Your task to perform on an android device: When is my next meeting? Image 0: 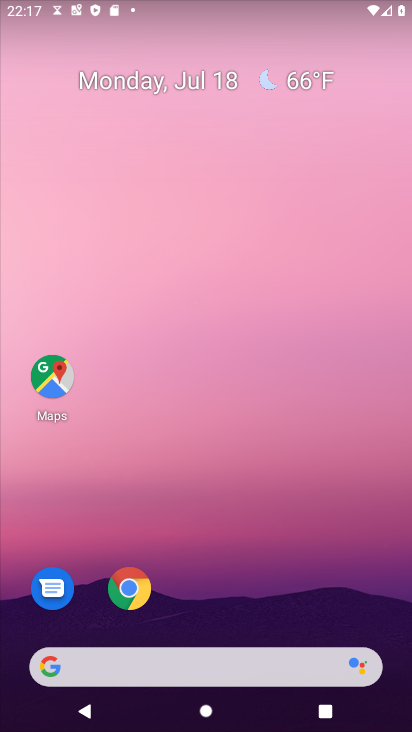
Step 0: press home button
Your task to perform on an android device: When is my next meeting? Image 1: 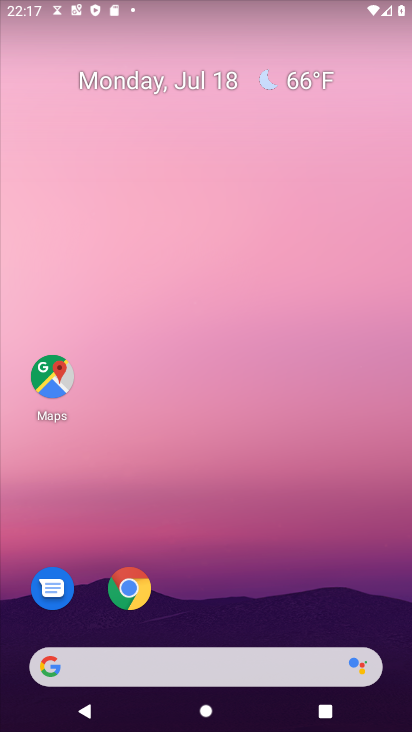
Step 1: drag from (187, 595) to (322, 145)
Your task to perform on an android device: When is my next meeting? Image 2: 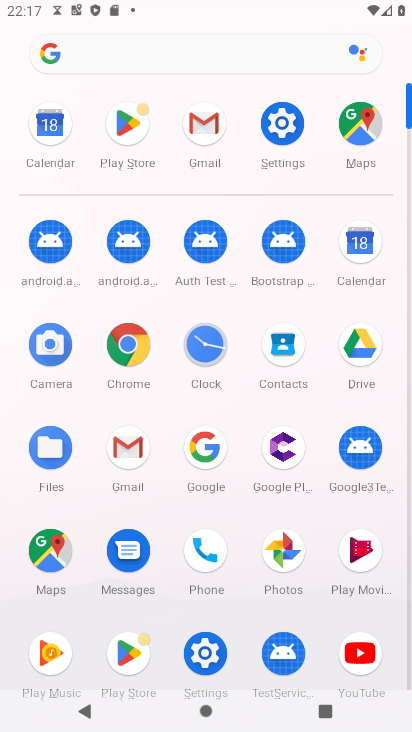
Step 2: click (357, 248)
Your task to perform on an android device: When is my next meeting? Image 3: 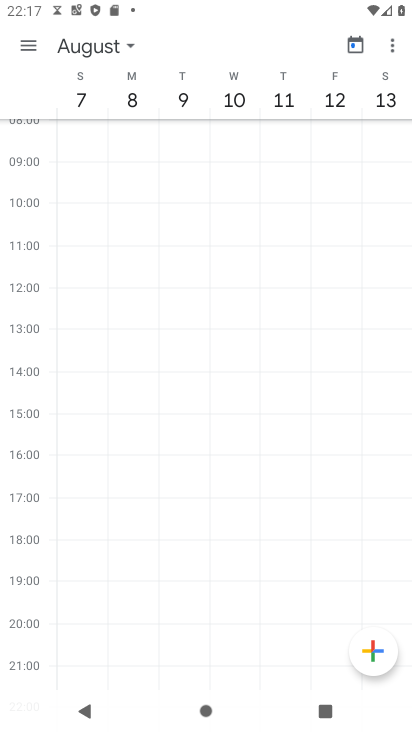
Step 3: click (97, 45)
Your task to perform on an android device: When is my next meeting? Image 4: 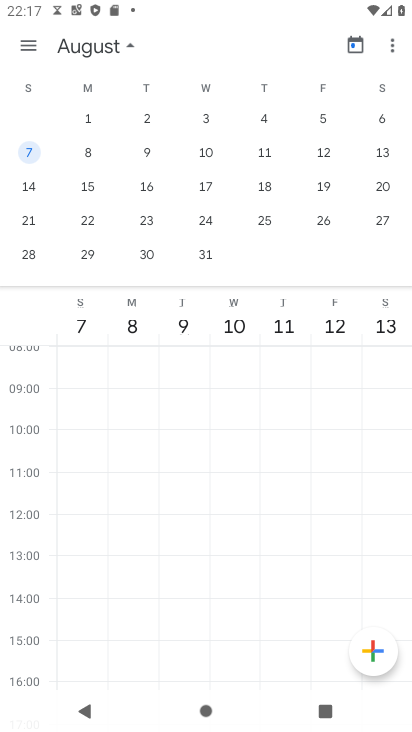
Step 4: drag from (81, 234) to (335, 240)
Your task to perform on an android device: When is my next meeting? Image 5: 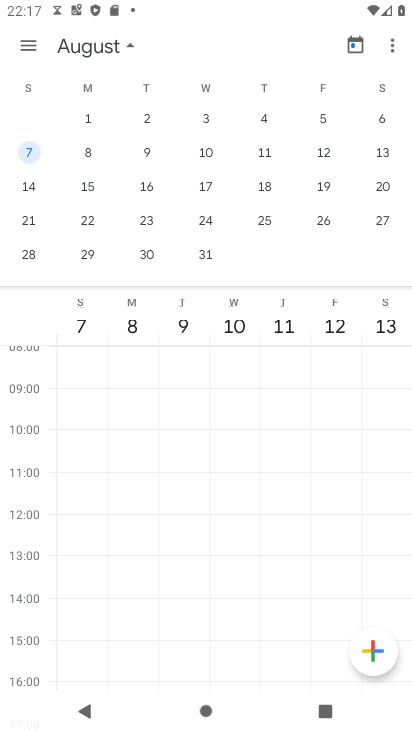
Step 5: drag from (81, 178) to (393, 215)
Your task to perform on an android device: When is my next meeting? Image 6: 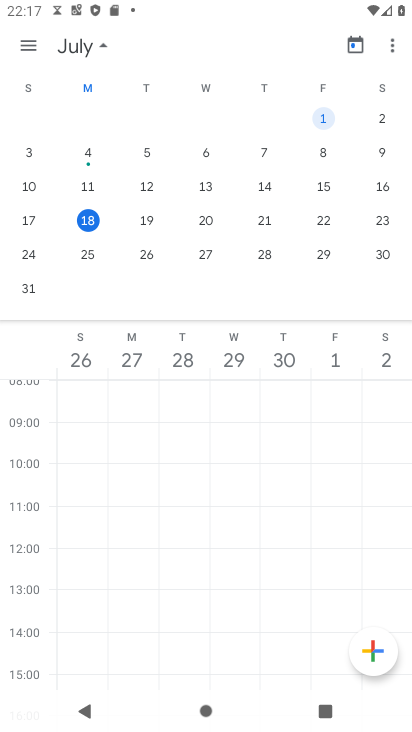
Step 6: click (89, 217)
Your task to perform on an android device: When is my next meeting? Image 7: 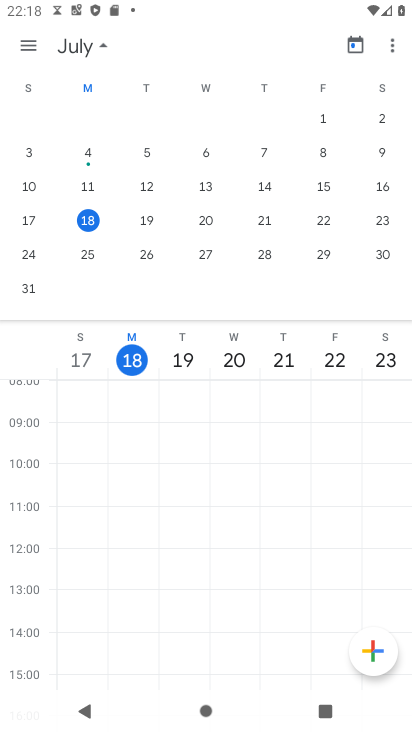
Step 7: click (31, 45)
Your task to perform on an android device: When is my next meeting? Image 8: 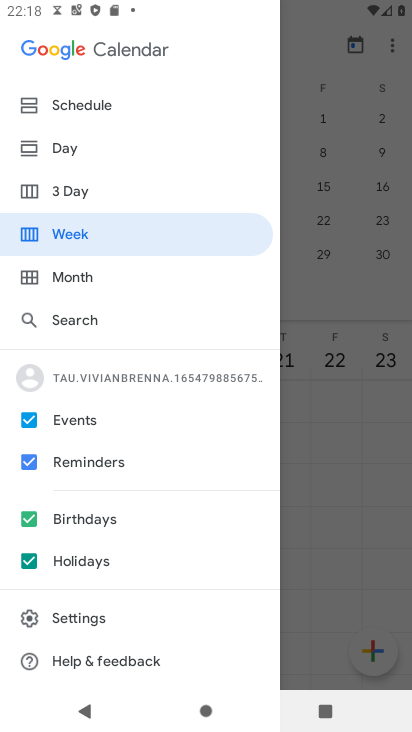
Step 8: click (89, 107)
Your task to perform on an android device: When is my next meeting? Image 9: 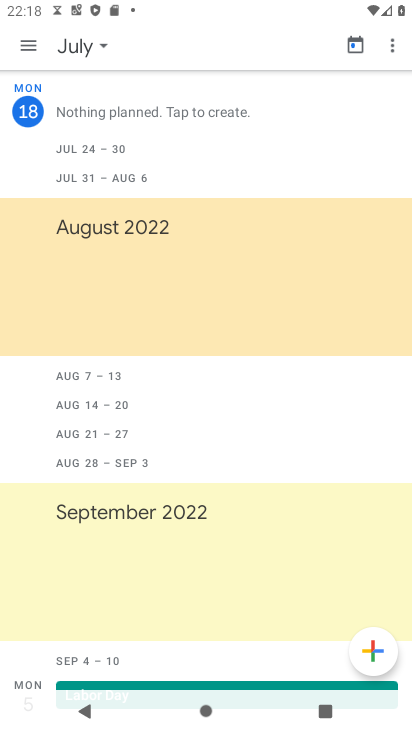
Step 9: task complete